Your task to perform on an android device: Check out the best rated 4k TV on Best Buy. Image 0: 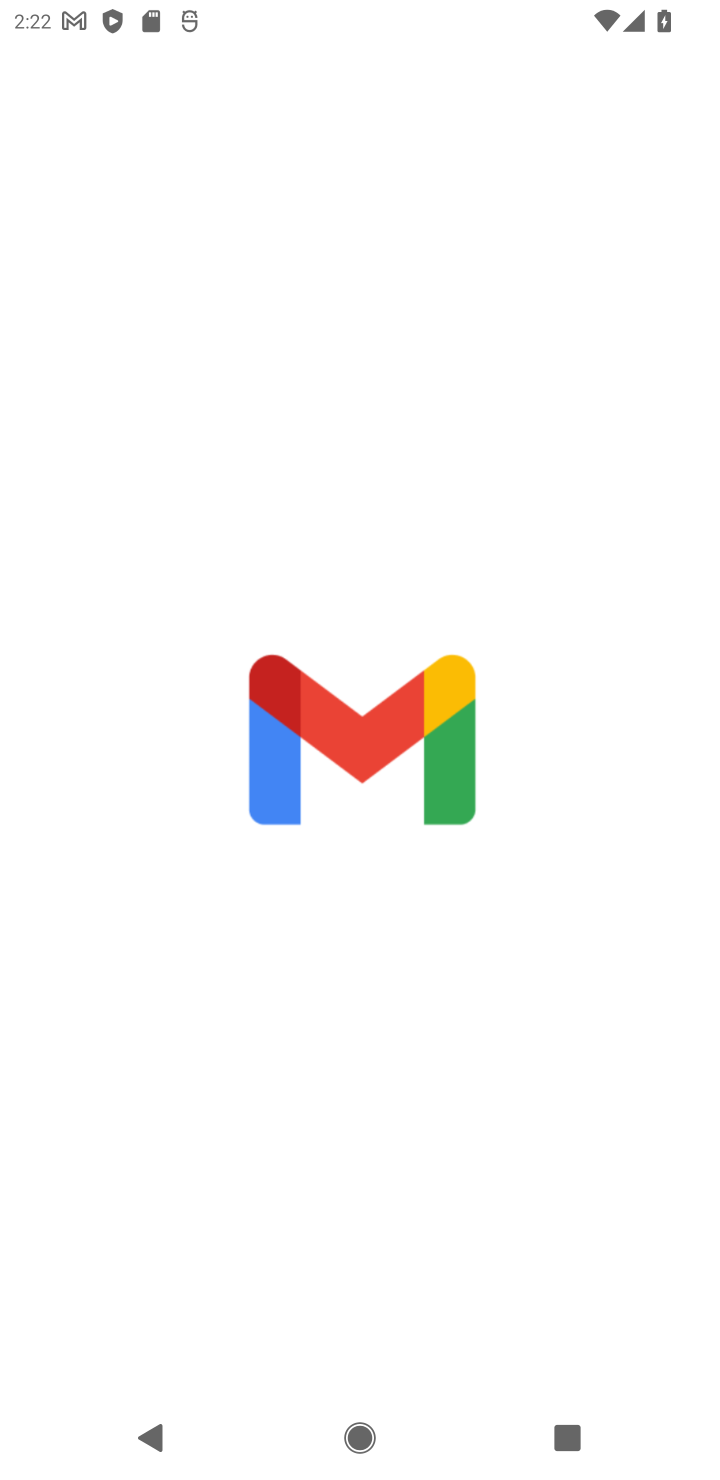
Step 0: task complete